Your task to perform on an android device: turn on bluetooth scan Image 0: 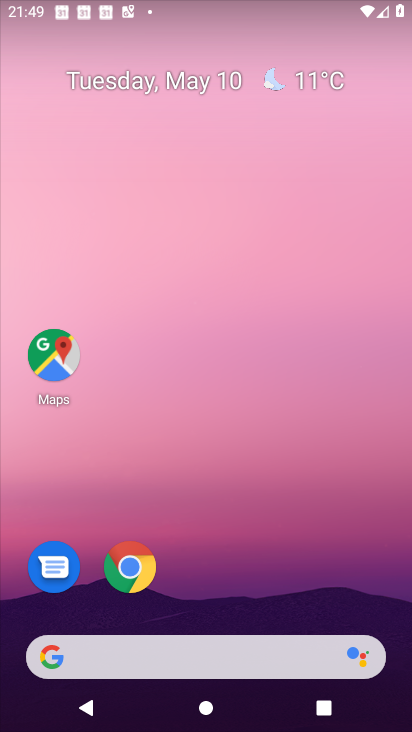
Step 0: drag from (199, 634) to (199, 207)
Your task to perform on an android device: turn on bluetooth scan Image 1: 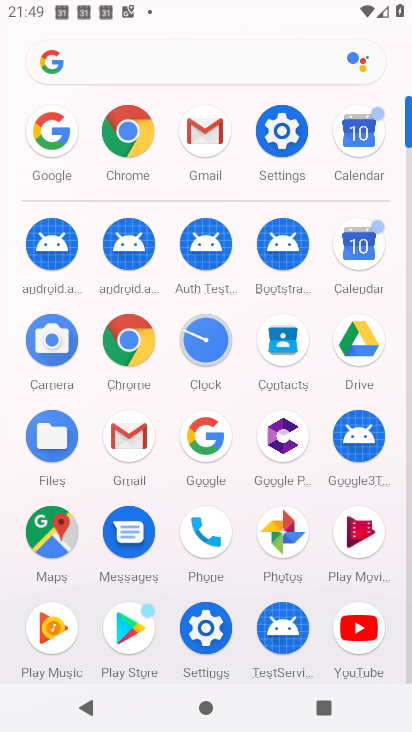
Step 1: click (269, 134)
Your task to perform on an android device: turn on bluetooth scan Image 2: 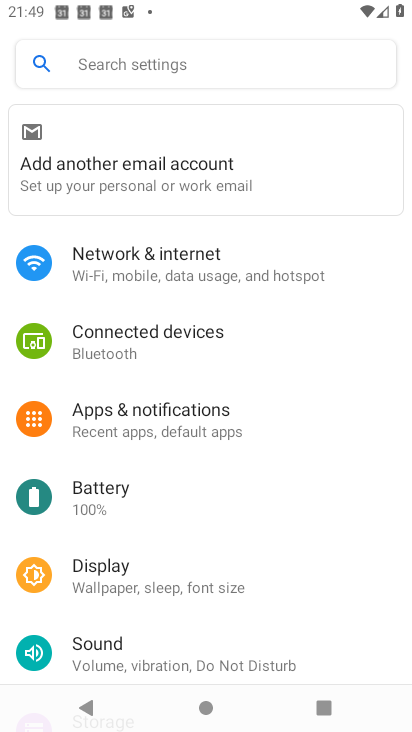
Step 2: drag from (192, 627) to (244, 260)
Your task to perform on an android device: turn on bluetooth scan Image 3: 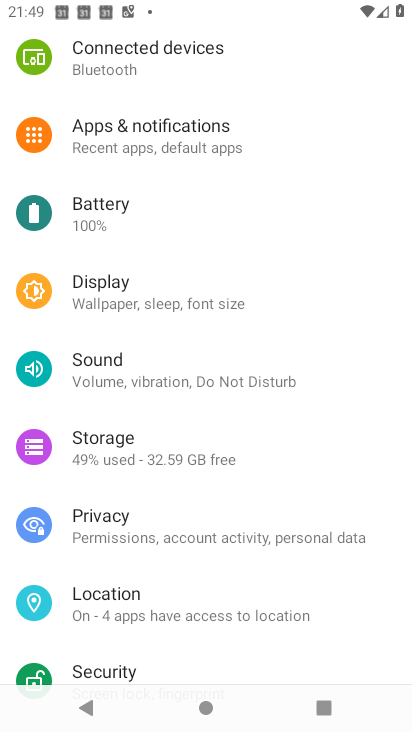
Step 3: click (144, 602)
Your task to perform on an android device: turn on bluetooth scan Image 4: 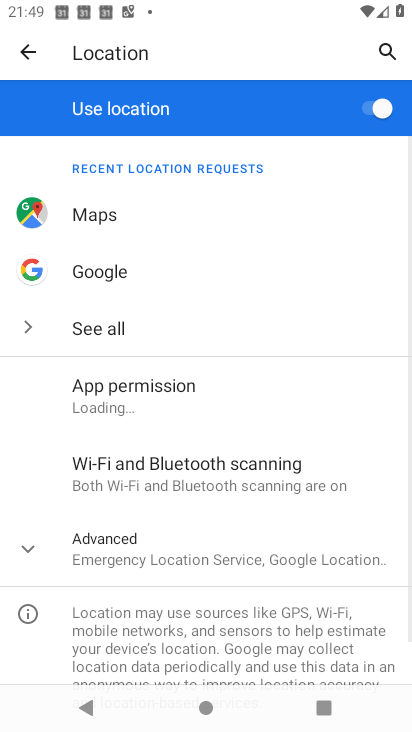
Step 4: click (187, 486)
Your task to perform on an android device: turn on bluetooth scan Image 5: 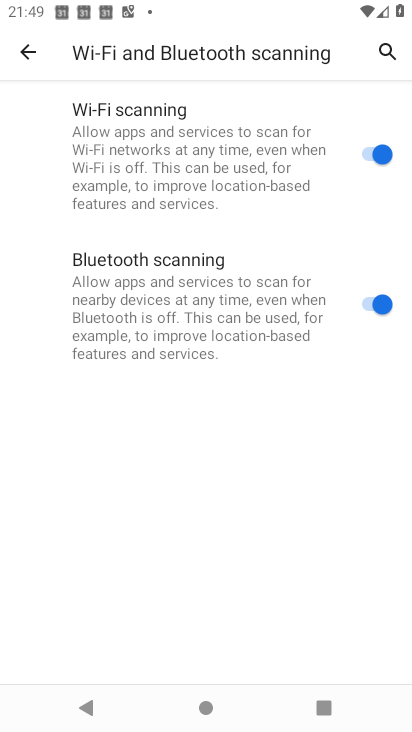
Step 5: task complete